Your task to perform on an android device: Open sound settings Image 0: 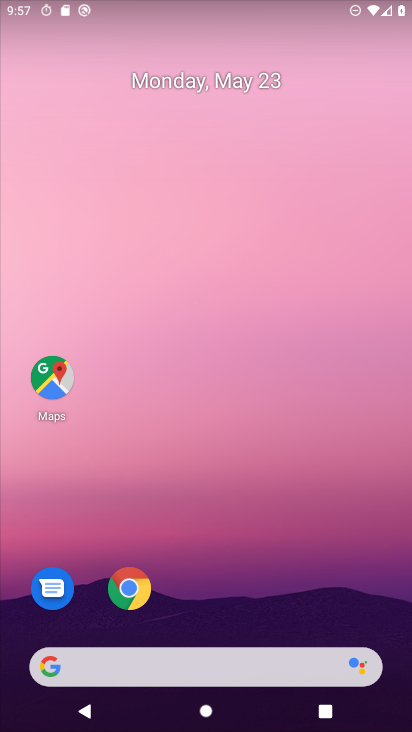
Step 0: drag from (389, 694) to (330, 201)
Your task to perform on an android device: Open sound settings Image 1: 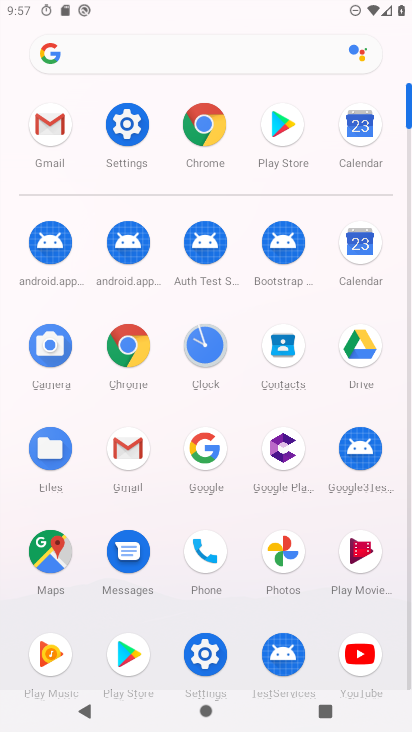
Step 1: click (113, 117)
Your task to perform on an android device: Open sound settings Image 2: 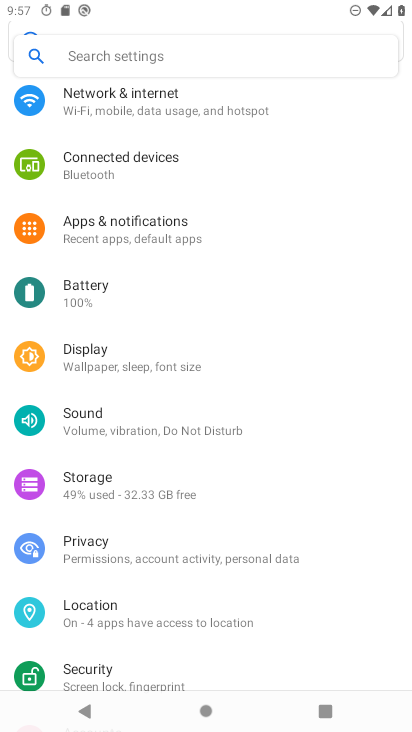
Step 2: click (108, 417)
Your task to perform on an android device: Open sound settings Image 3: 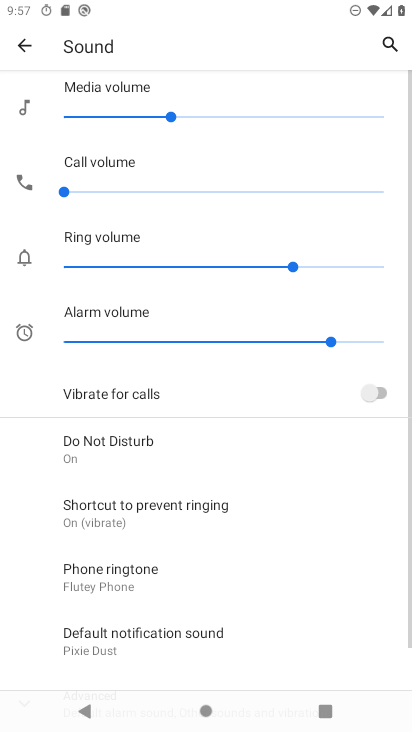
Step 3: task complete